Your task to perform on an android device: remove spam from my inbox in the gmail app Image 0: 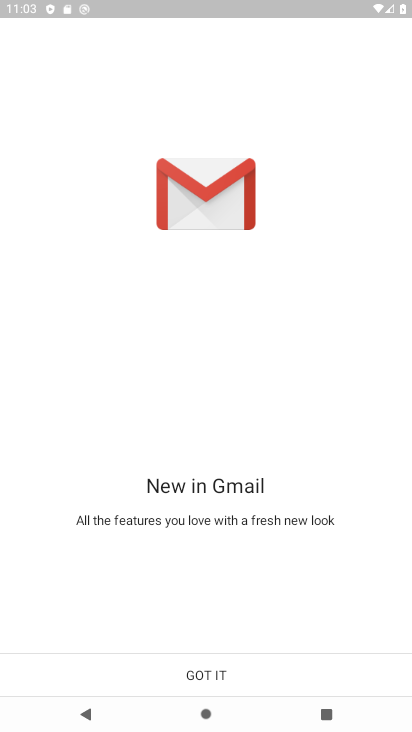
Step 0: click (203, 676)
Your task to perform on an android device: remove spam from my inbox in the gmail app Image 1: 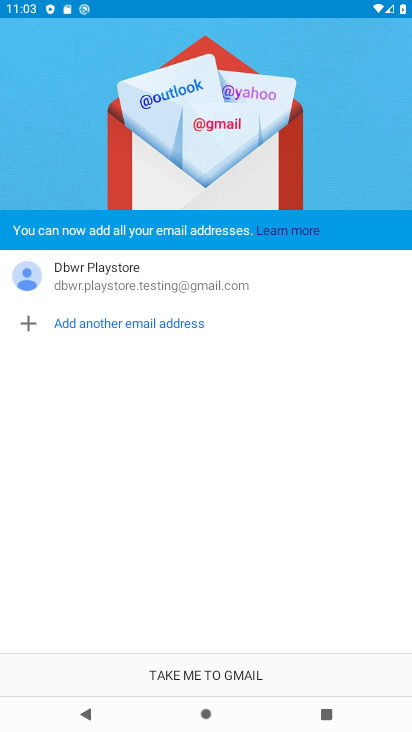
Step 1: click (204, 675)
Your task to perform on an android device: remove spam from my inbox in the gmail app Image 2: 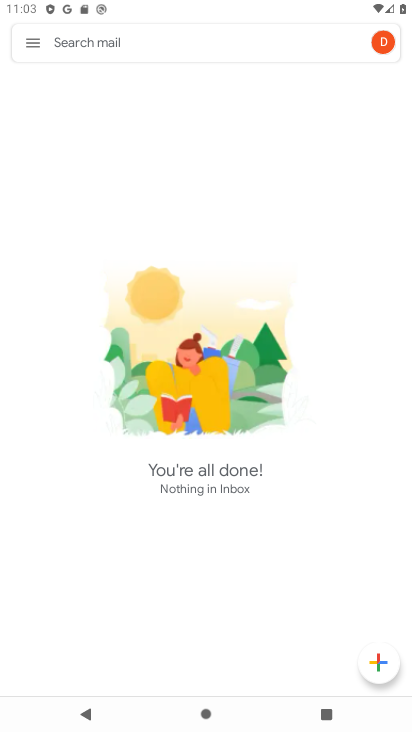
Step 2: click (39, 44)
Your task to perform on an android device: remove spam from my inbox in the gmail app Image 3: 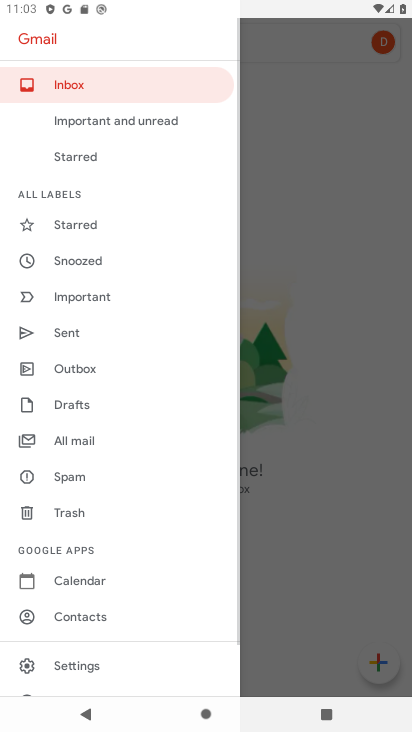
Step 3: drag from (93, 616) to (94, 268)
Your task to perform on an android device: remove spam from my inbox in the gmail app Image 4: 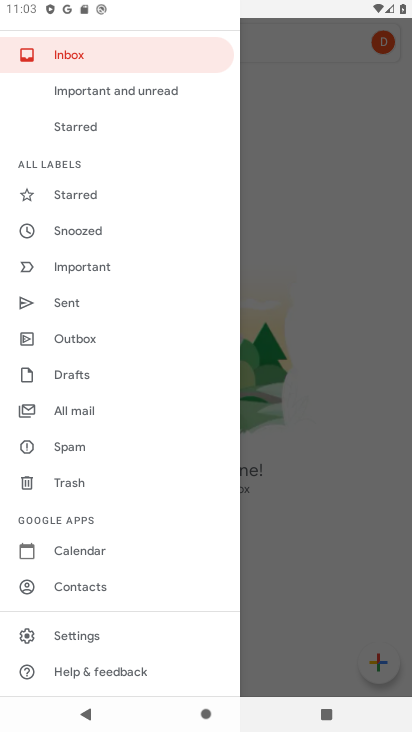
Step 4: click (58, 447)
Your task to perform on an android device: remove spam from my inbox in the gmail app Image 5: 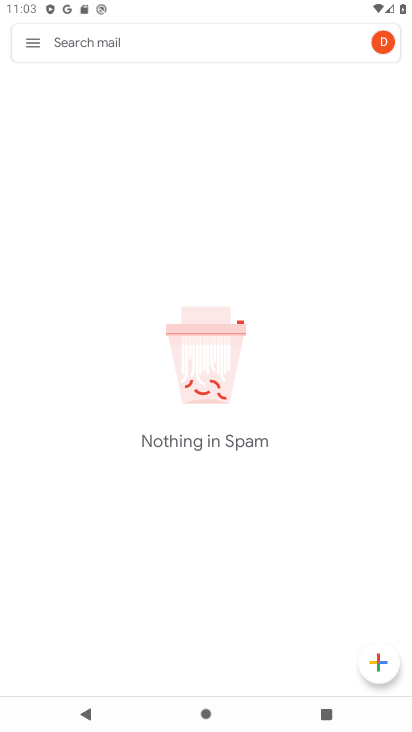
Step 5: task complete